Your task to perform on an android device: Open ESPN.com Image 0: 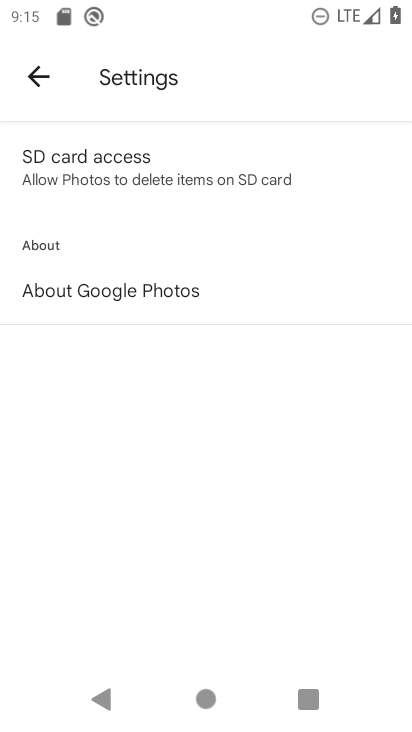
Step 0: press home button
Your task to perform on an android device: Open ESPN.com Image 1: 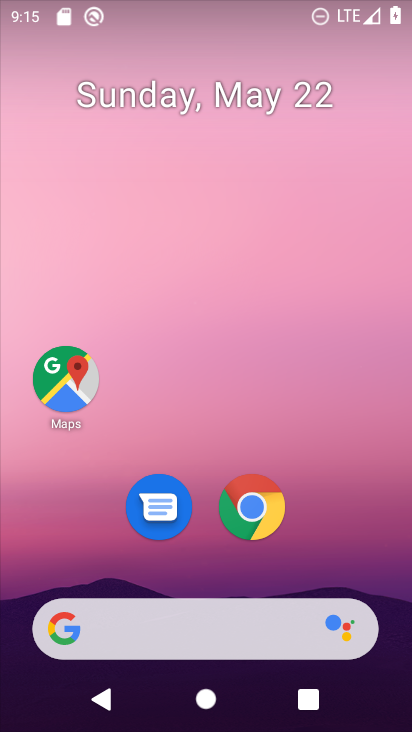
Step 1: click (177, 647)
Your task to perform on an android device: Open ESPN.com Image 2: 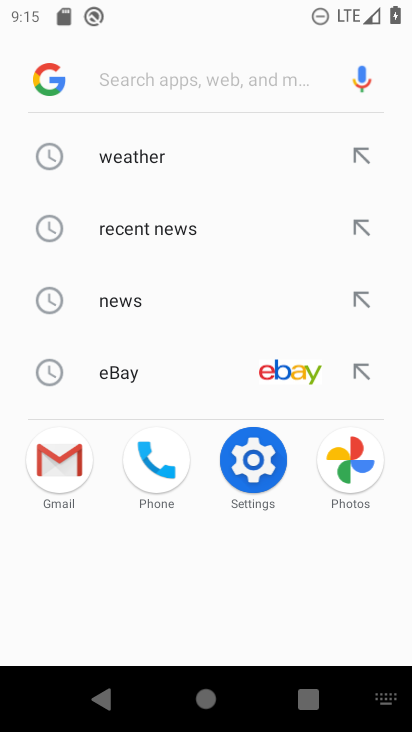
Step 2: click (168, 77)
Your task to perform on an android device: Open ESPN.com Image 3: 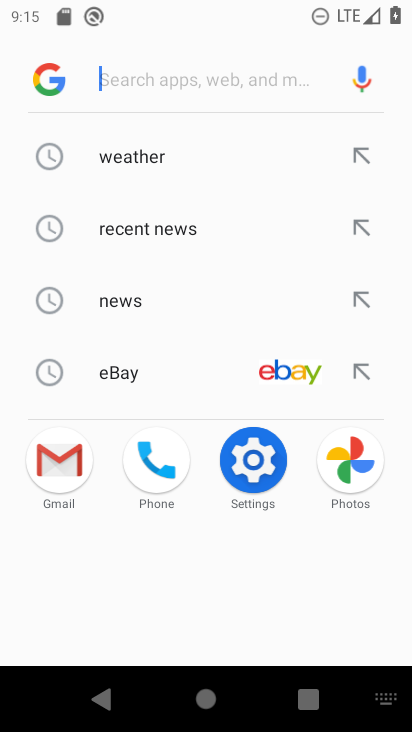
Step 3: type "espn.com"
Your task to perform on an android device: Open ESPN.com Image 4: 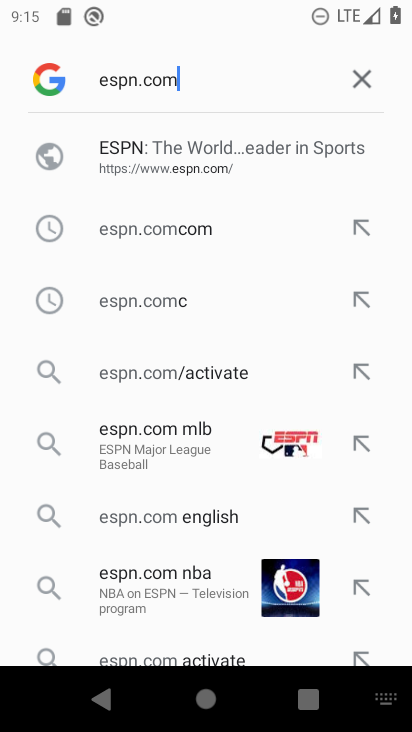
Step 4: click (199, 157)
Your task to perform on an android device: Open ESPN.com Image 5: 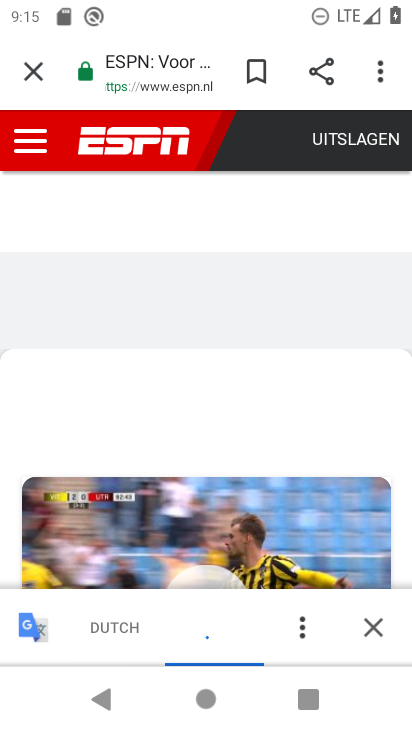
Step 5: task complete